Your task to perform on an android device: Open sound settings Image 0: 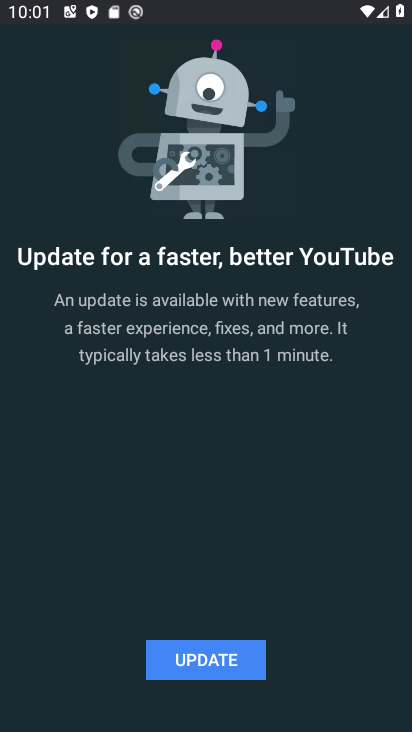
Step 0: press home button
Your task to perform on an android device: Open sound settings Image 1: 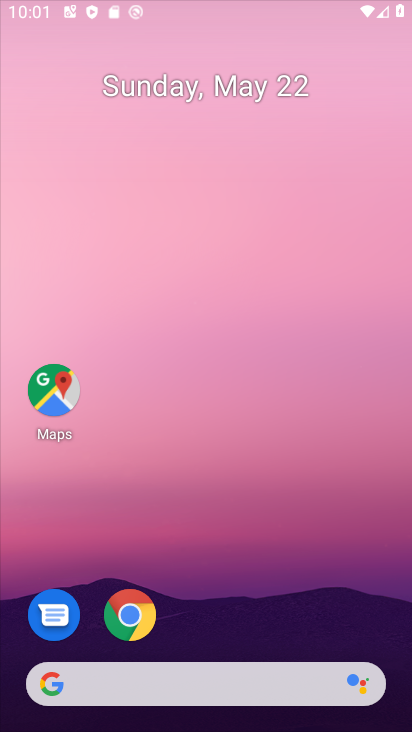
Step 1: drag from (285, 571) to (285, 23)
Your task to perform on an android device: Open sound settings Image 2: 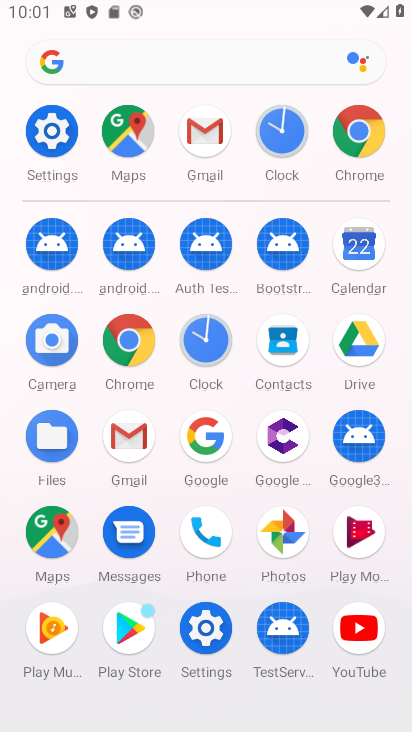
Step 2: click (47, 114)
Your task to perform on an android device: Open sound settings Image 3: 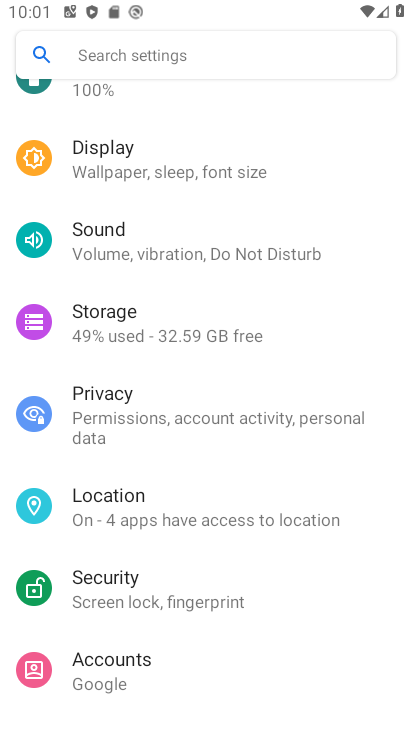
Step 3: click (163, 235)
Your task to perform on an android device: Open sound settings Image 4: 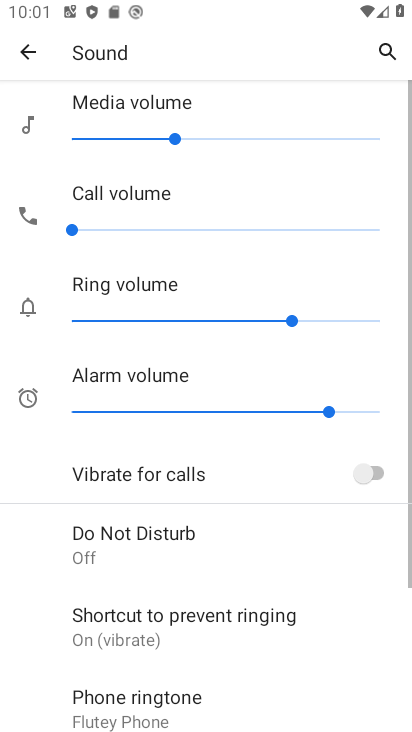
Step 4: task complete